Your task to perform on an android device: allow cookies in the chrome app Image 0: 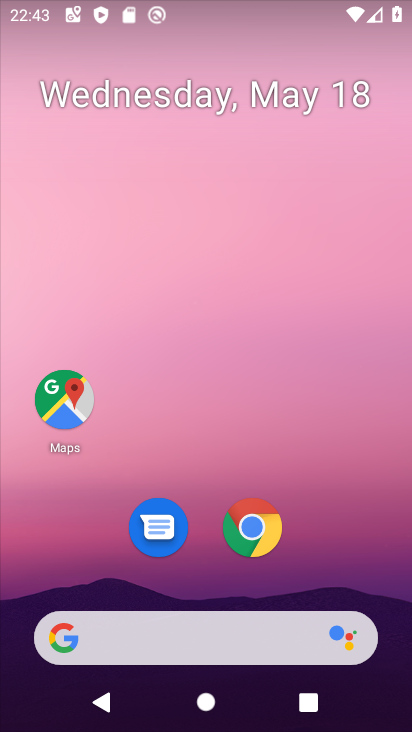
Step 0: click (268, 522)
Your task to perform on an android device: allow cookies in the chrome app Image 1: 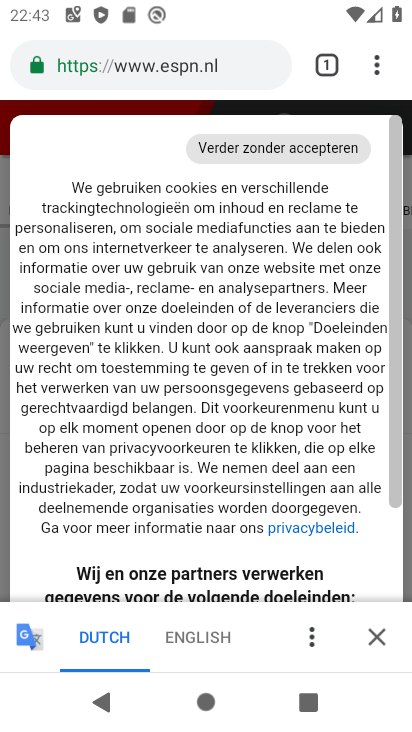
Step 1: click (385, 65)
Your task to perform on an android device: allow cookies in the chrome app Image 2: 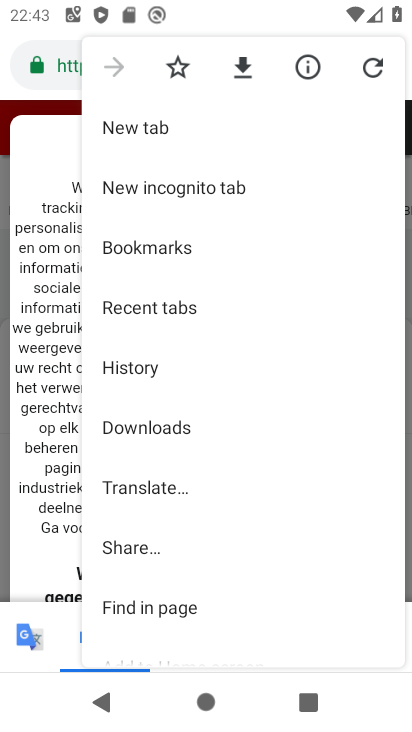
Step 2: drag from (187, 595) to (199, 355)
Your task to perform on an android device: allow cookies in the chrome app Image 3: 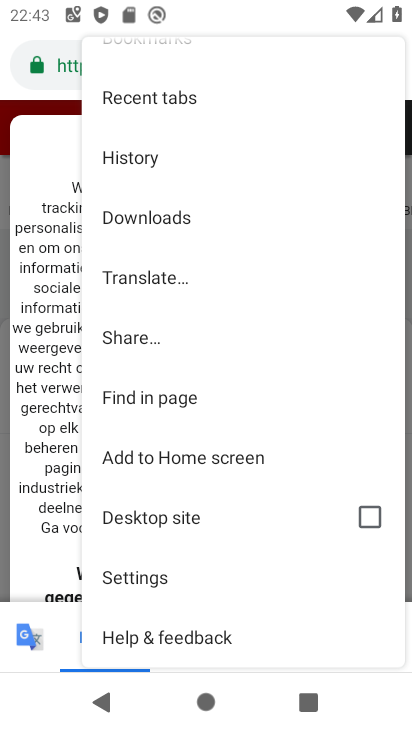
Step 3: click (229, 586)
Your task to perform on an android device: allow cookies in the chrome app Image 4: 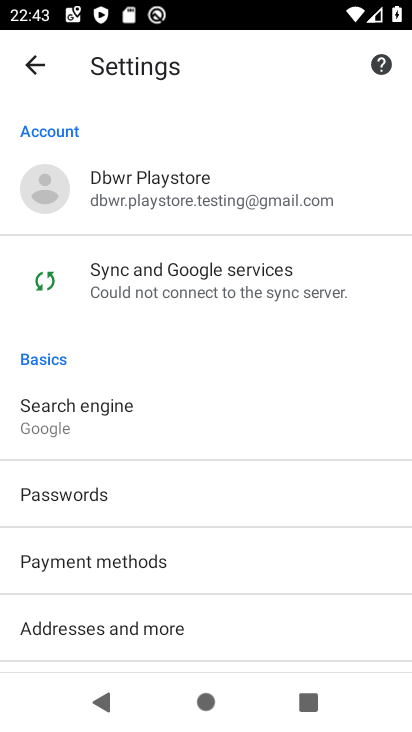
Step 4: drag from (254, 500) to (271, 303)
Your task to perform on an android device: allow cookies in the chrome app Image 5: 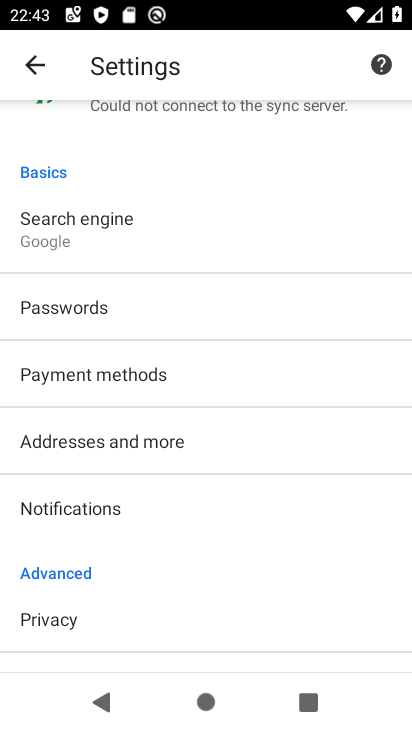
Step 5: drag from (214, 632) to (212, 328)
Your task to perform on an android device: allow cookies in the chrome app Image 6: 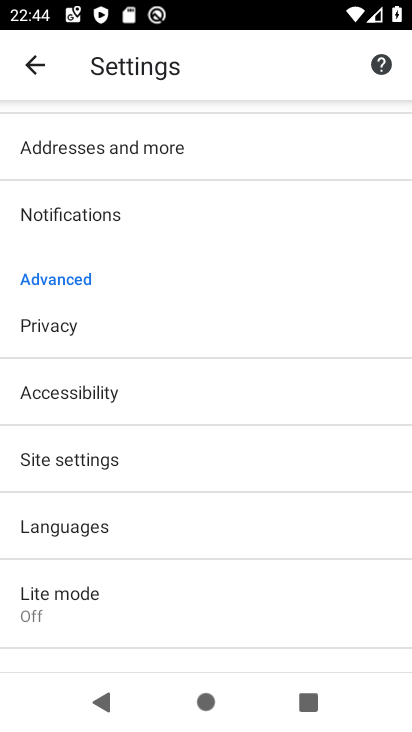
Step 6: click (215, 485)
Your task to perform on an android device: allow cookies in the chrome app Image 7: 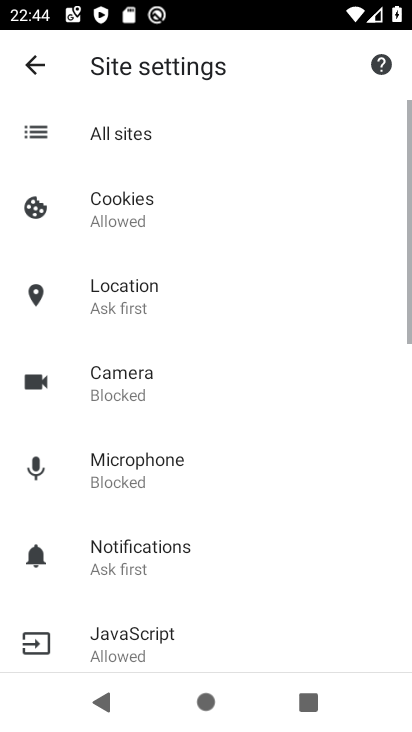
Step 7: task complete